Your task to perform on an android device: read, delete, or share a saved page in the chrome app Image 0: 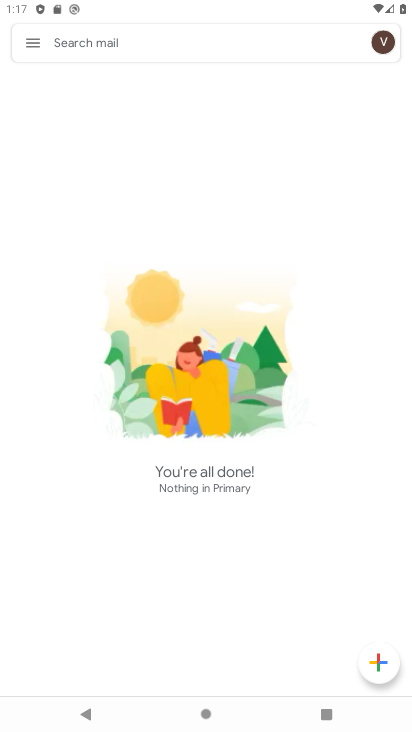
Step 0: click (26, 32)
Your task to perform on an android device: read, delete, or share a saved page in the chrome app Image 1: 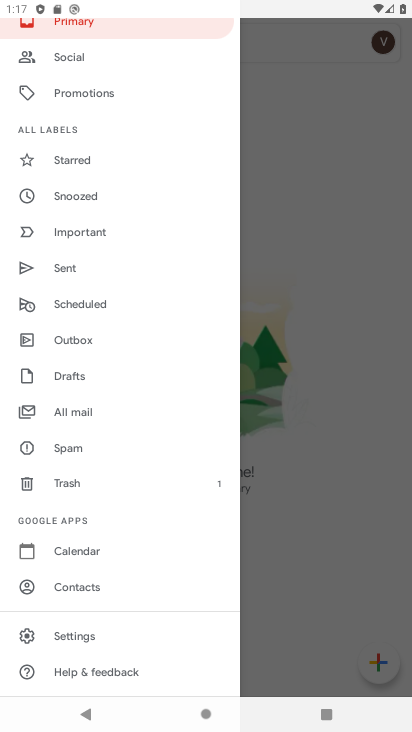
Step 1: press home button
Your task to perform on an android device: read, delete, or share a saved page in the chrome app Image 2: 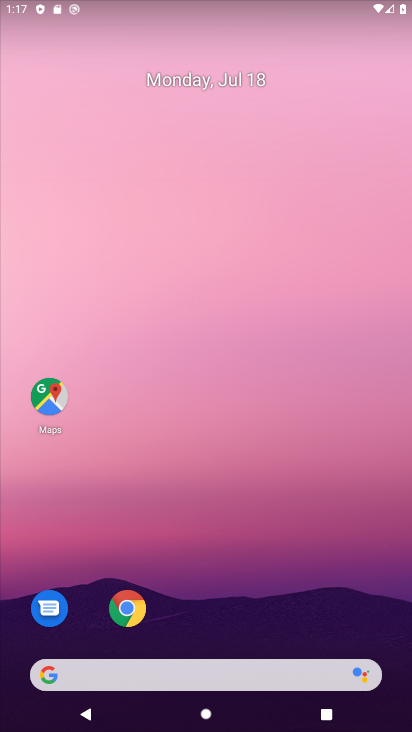
Step 2: click (132, 609)
Your task to perform on an android device: read, delete, or share a saved page in the chrome app Image 3: 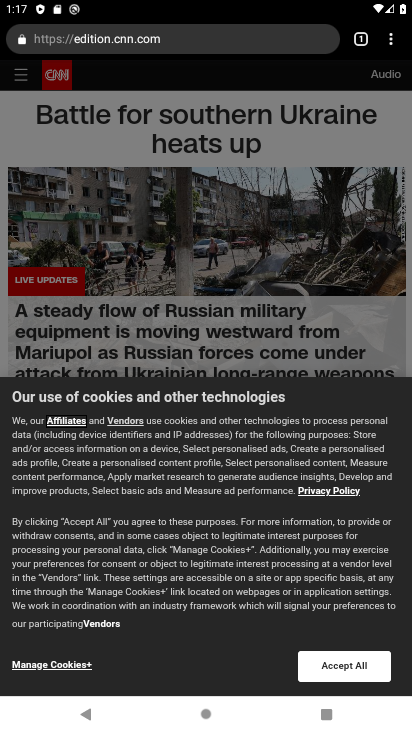
Step 3: click (393, 47)
Your task to perform on an android device: read, delete, or share a saved page in the chrome app Image 4: 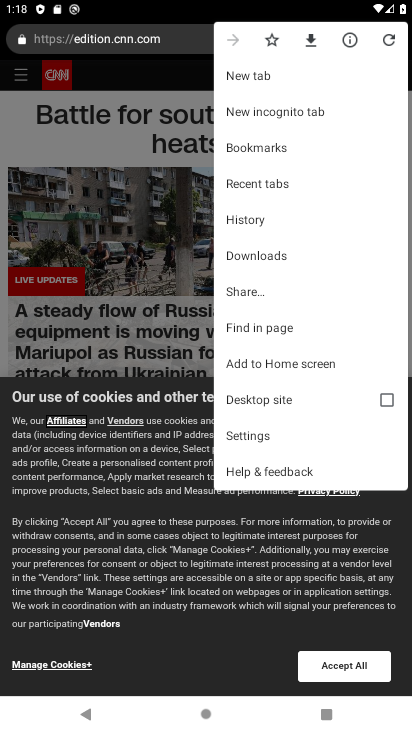
Step 4: click (259, 252)
Your task to perform on an android device: read, delete, or share a saved page in the chrome app Image 5: 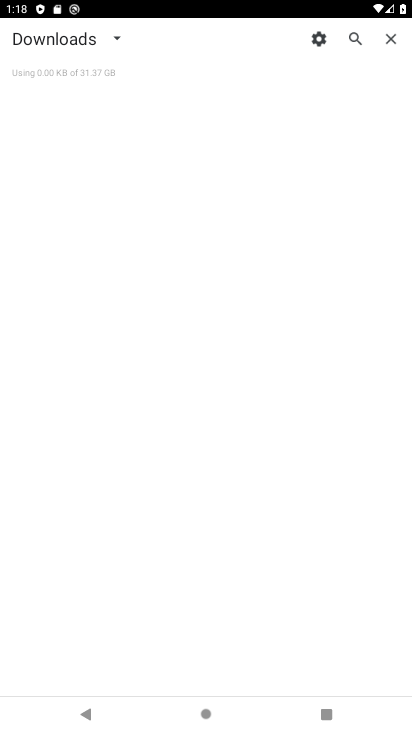
Step 5: task complete